Your task to perform on an android device: toggle airplane mode Image 0: 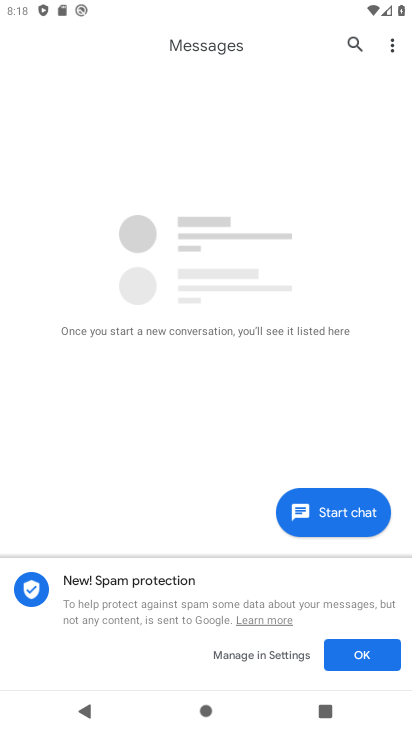
Step 0: drag from (287, 13) to (286, 494)
Your task to perform on an android device: toggle airplane mode Image 1: 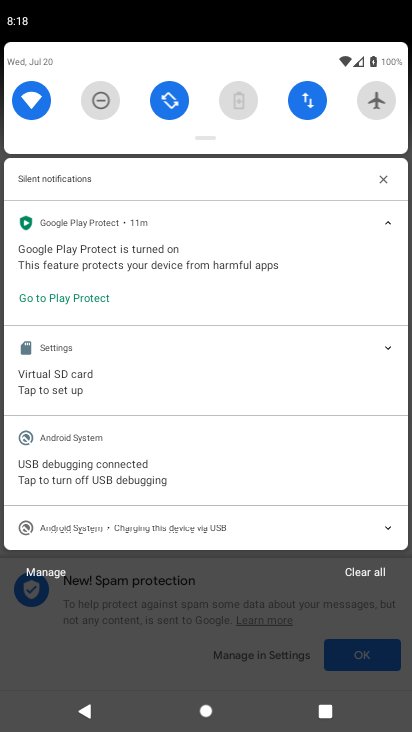
Step 1: click (385, 98)
Your task to perform on an android device: toggle airplane mode Image 2: 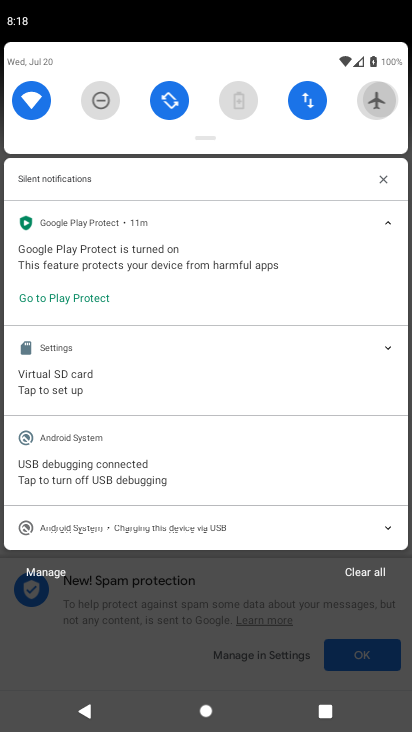
Step 2: click (385, 98)
Your task to perform on an android device: toggle airplane mode Image 3: 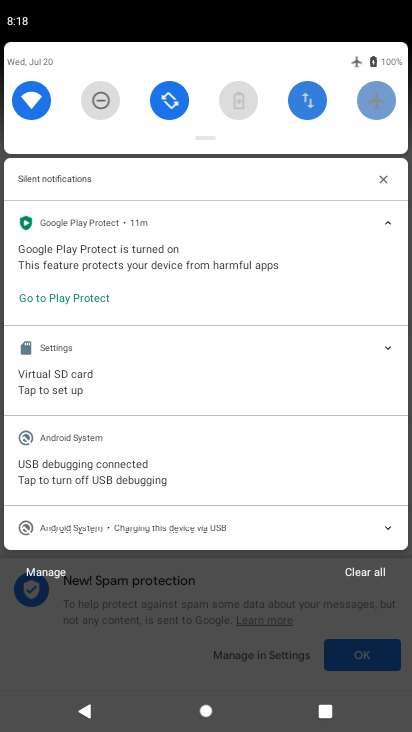
Step 3: click (385, 98)
Your task to perform on an android device: toggle airplane mode Image 4: 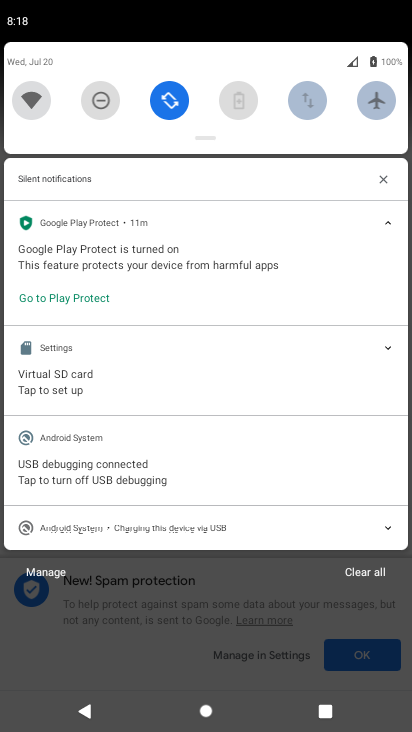
Step 4: click (385, 98)
Your task to perform on an android device: toggle airplane mode Image 5: 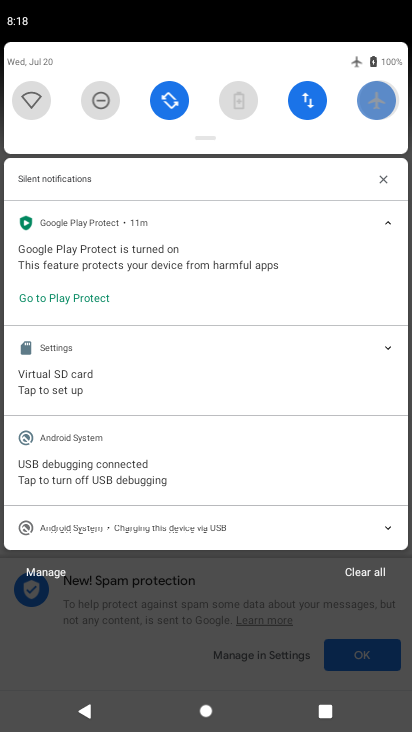
Step 5: click (385, 98)
Your task to perform on an android device: toggle airplane mode Image 6: 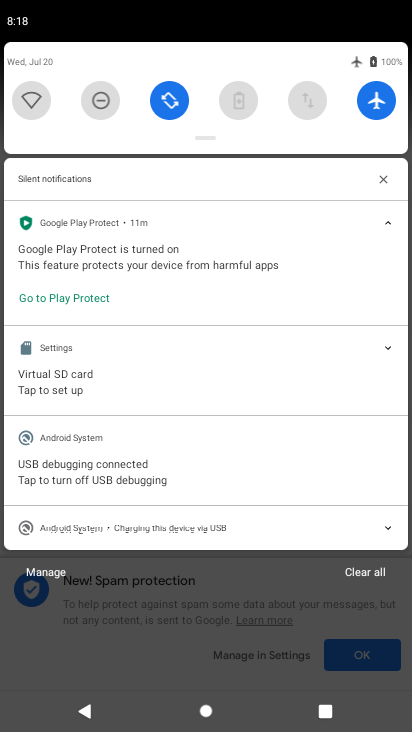
Step 6: click (385, 98)
Your task to perform on an android device: toggle airplane mode Image 7: 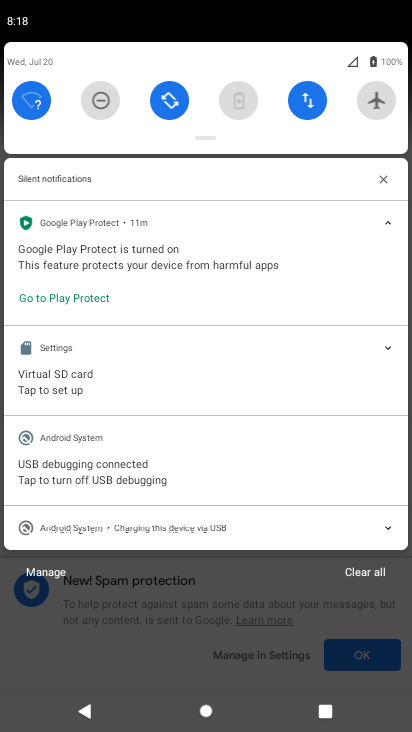
Step 7: task complete